Your task to perform on an android device: Open wifi settings Image 0: 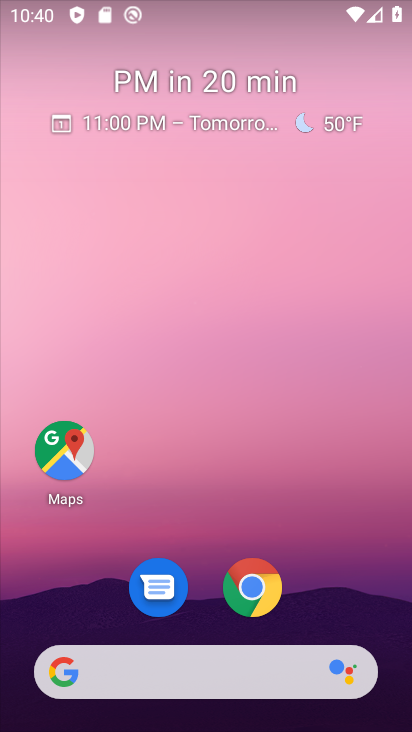
Step 0: drag from (218, 623) to (301, 14)
Your task to perform on an android device: Open wifi settings Image 1: 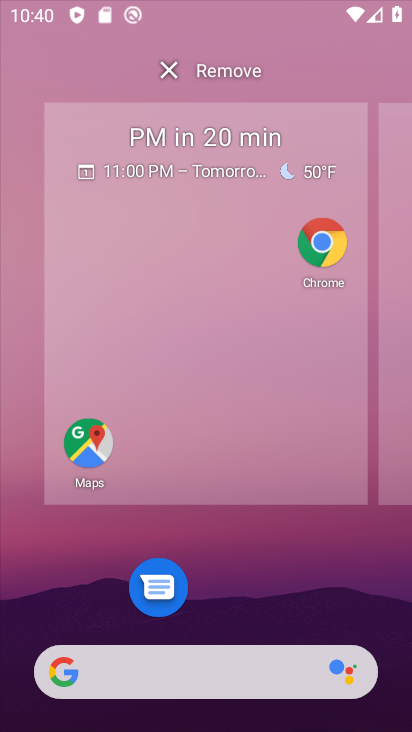
Step 1: click (222, 598)
Your task to perform on an android device: Open wifi settings Image 2: 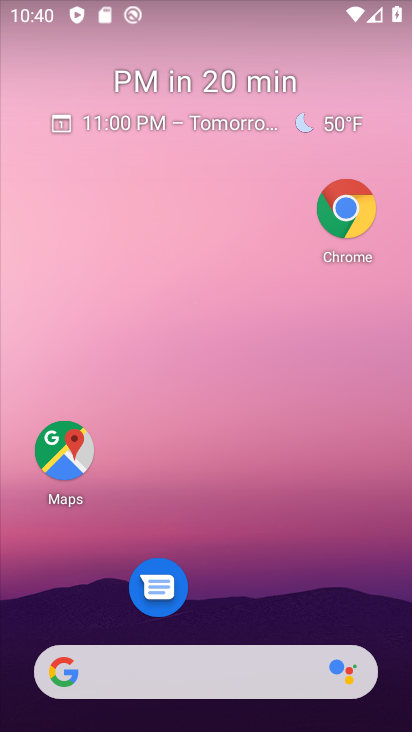
Step 2: drag from (222, 598) to (314, 0)
Your task to perform on an android device: Open wifi settings Image 3: 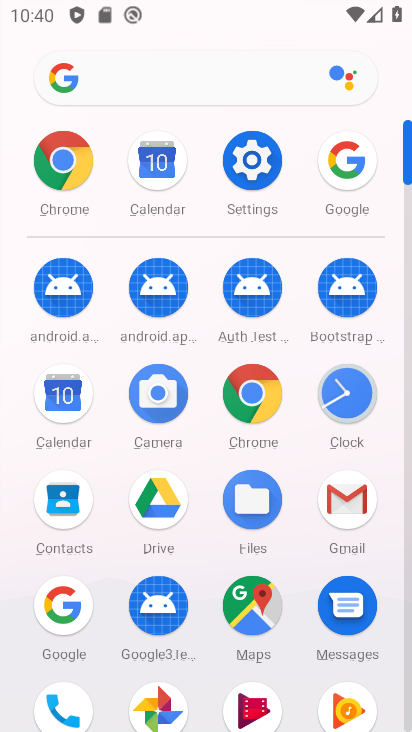
Step 3: click (247, 177)
Your task to perform on an android device: Open wifi settings Image 4: 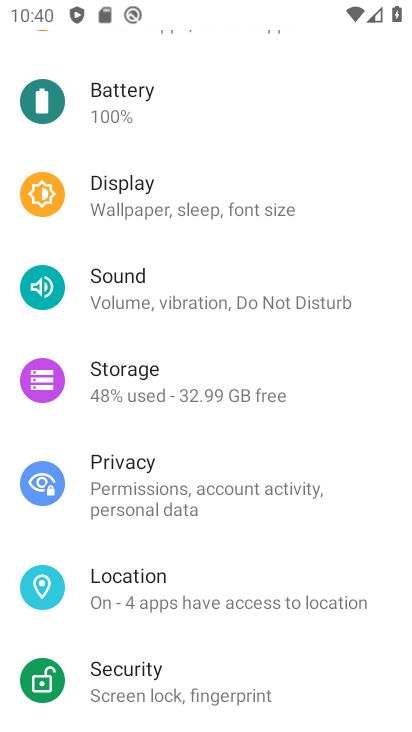
Step 4: drag from (236, 223) to (225, 730)
Your task to perform on an android device: Open wifi settings Image 5: 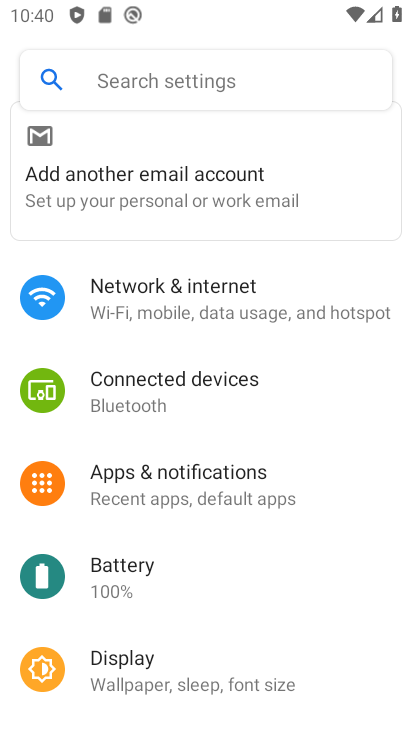
Step 5: click (180, 302)
Your task to perform on an android device: Open wifi settings Image 6: 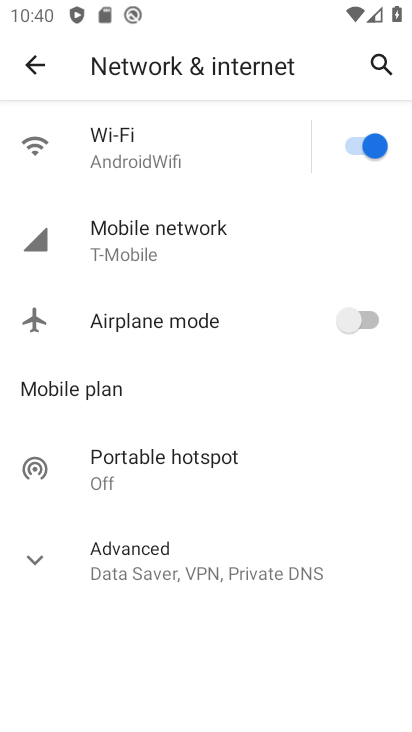
Step 6: click (181, 148)
Your task to perform on an android device: Open wifi settings Image 7: 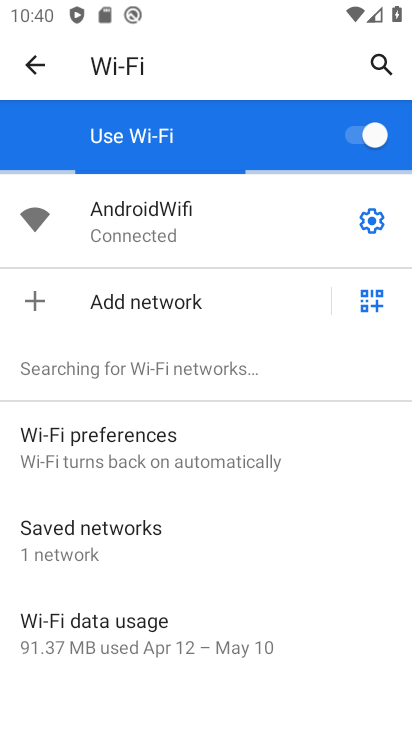
Step 7: task complete